Your task to perform on an android device: turn vacation reply on in the gmail app Image 0: 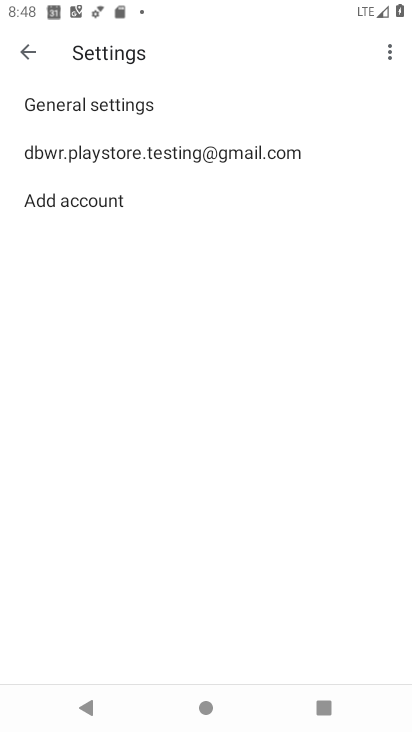
Step 0: click (248, 211)
Your task to perform on an android device: turn vacation reply on in the gmail app Image 1: 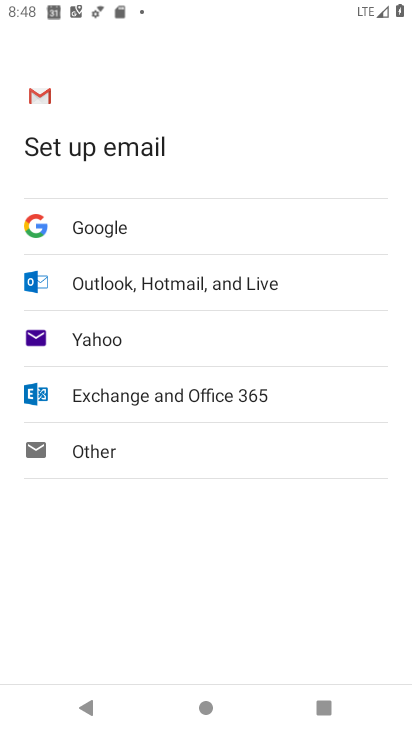
Step 1: click (123, 167)
Your task to perform on an android device: turn vacation reply on in the gmail app Image 2: 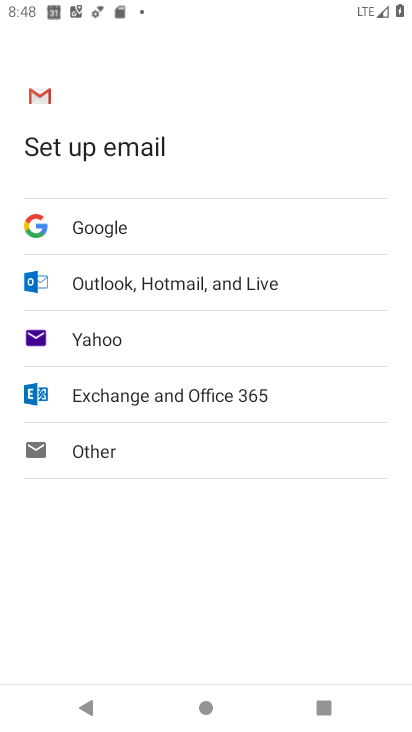
Step 2: press back button
Your task to perform on an android device: turn vacation reply on in the gmail app Image 3: 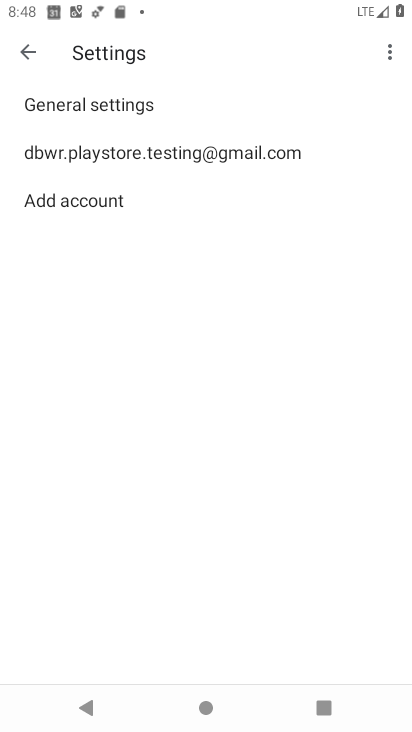
Step 3: click (140, 142)
Your task to perform on an android device: turn vacation reply on in the gmail app Image 4: 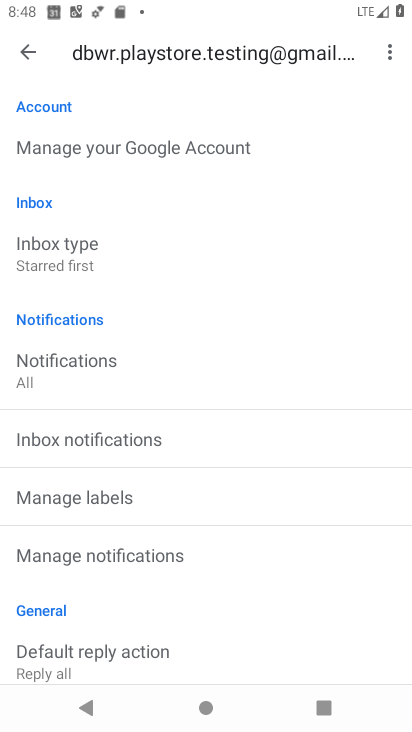
Step 4: drag from (205, 461) to (253, 201)
Your task to perform on an android device: turn vacation reply on in the gmail app Image 5: 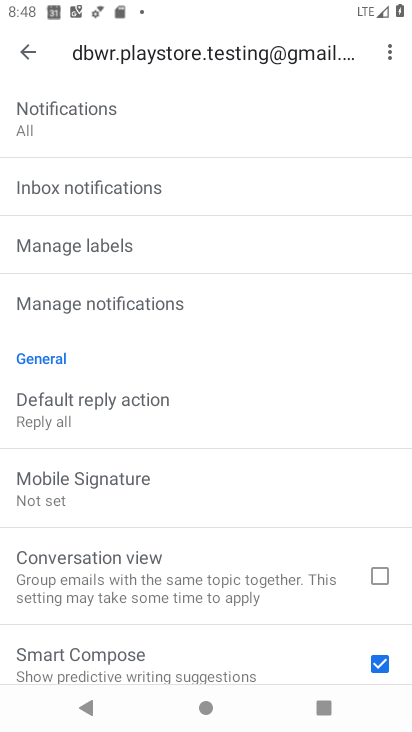
Step 5: click (248, 209)
Your task to perform on an android device: turn vacation reply on in the gmail app Image 6: 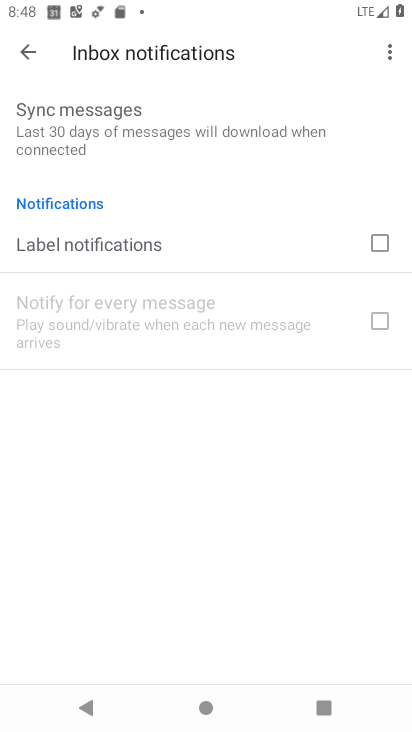
Step 6: drag from (231, 671) to (266, 228)
Your task to perform on an android device: turn vacation reply on in the gmail app Image 7: 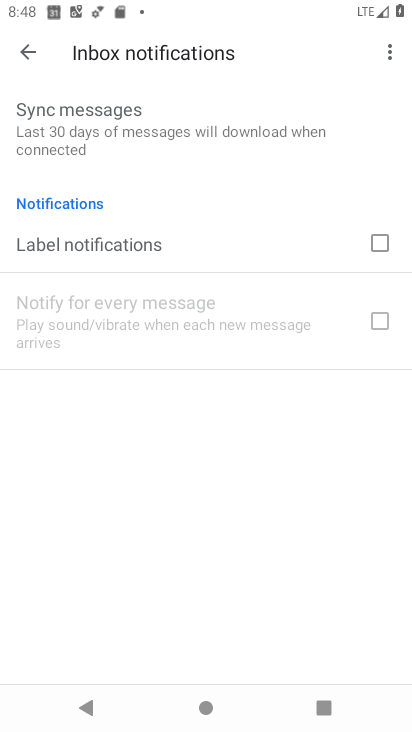
Step 7: click (29, 47)
Your task to perform on an android device: turn vacation reply on in the gmail app Image 8: 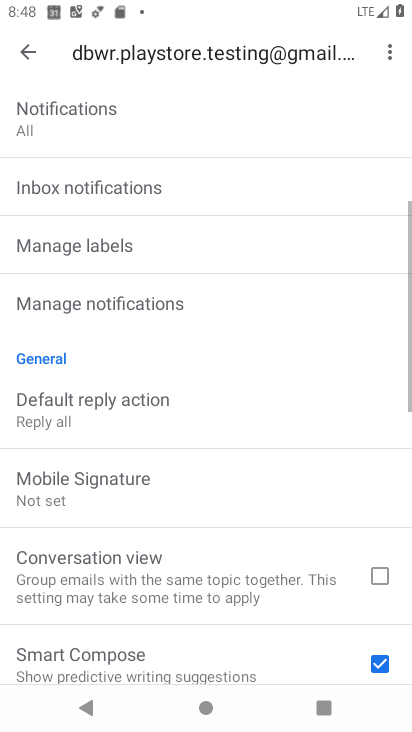
Step 8: drag from (244, 555) to (309, 33)
Your task to perform on an android device: turn vacation reply on in the gmail app Image 9: 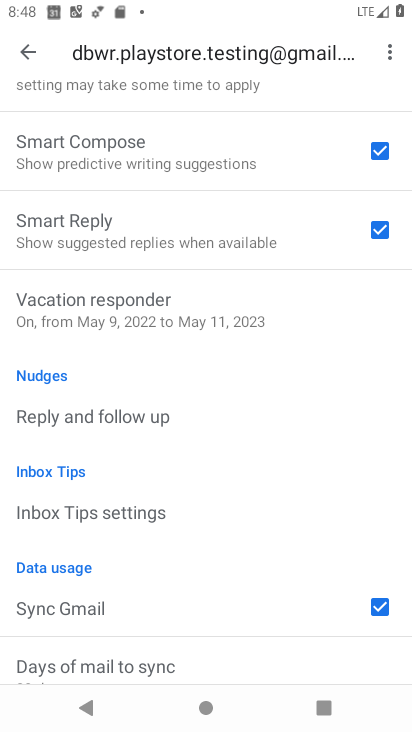
Step 9: click (129, 287)
Your task to perform on an android device: turn vacation reply on in the gmail app Image 10: 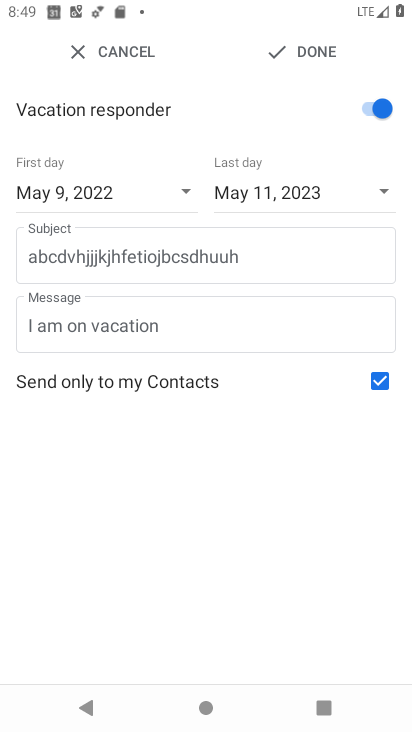
Step 10: click (306, 44)
Your task to perform on an android device: turn vacation reply on in the gmail app Image 11: 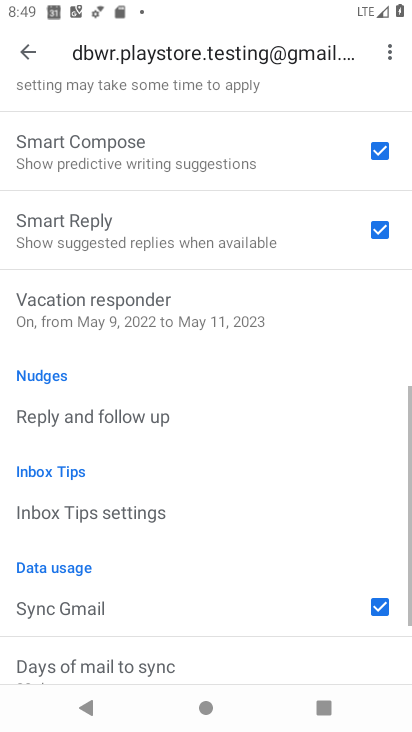
Step 11: task complete